Your task to perform on an android device: Go to ESPN.com Image 0: 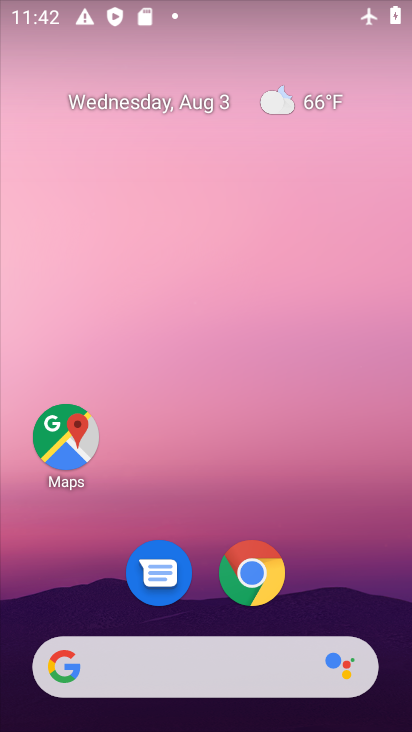
Step 0: drag from (320, 595) to (293, 89)
Your task to perform on an android device: Go to ESPN.com Image 1: 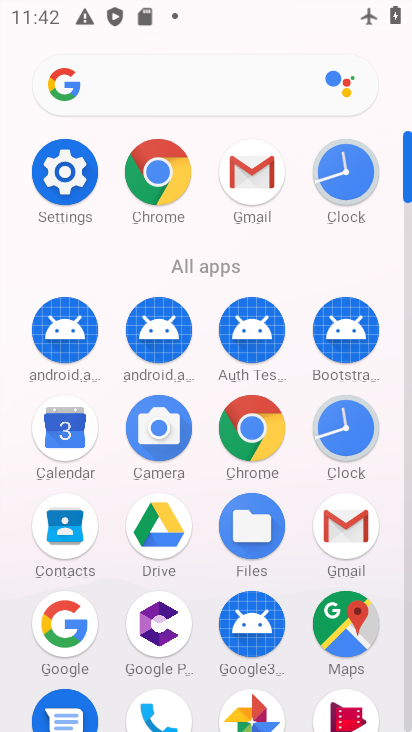
Step 1: click (153, 165)
Your task to perform on an android device: Go to ESPN.com Image 2: 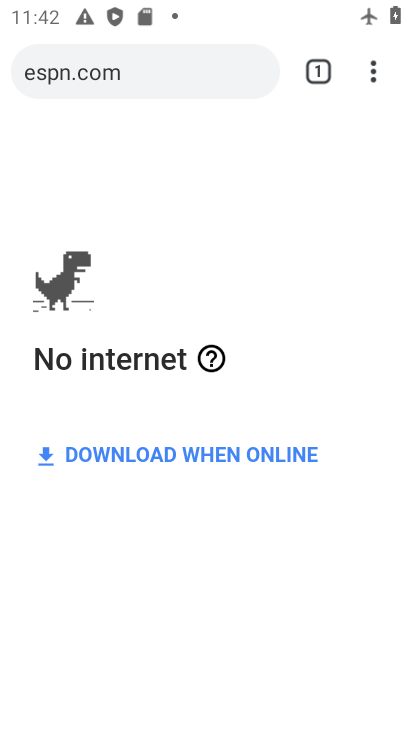
Step 2: press enter
Your task to perform on an android device: Go to ESPN.com Image 3: 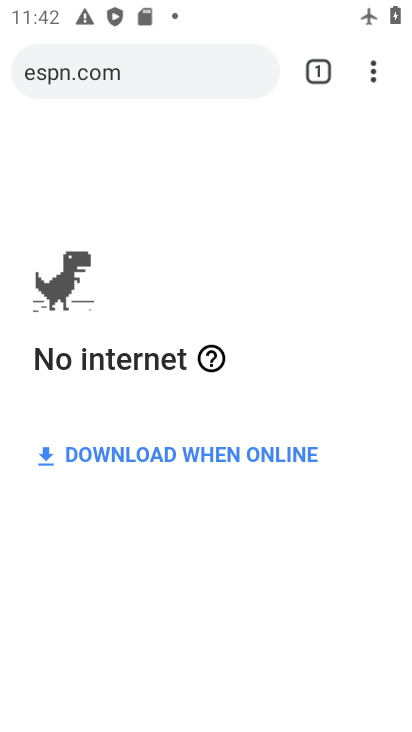
Step 3: click (221, 61)
Your task to perform on an android device: Go to ESPN.com Image 4: 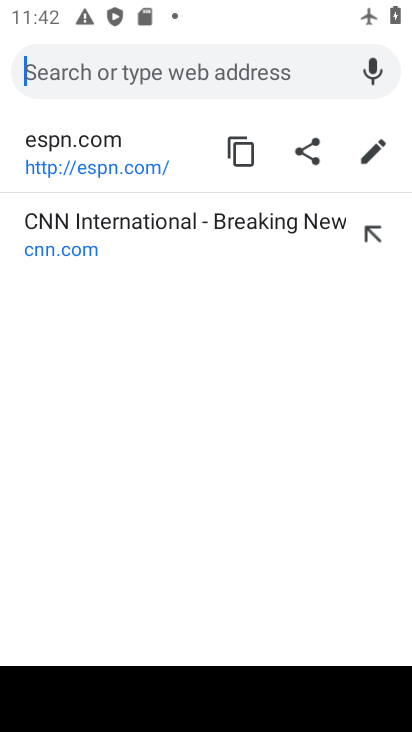
Step 4: click (24, 158)
Your task to perform on an android device: Go to ESPN.com Image 5: 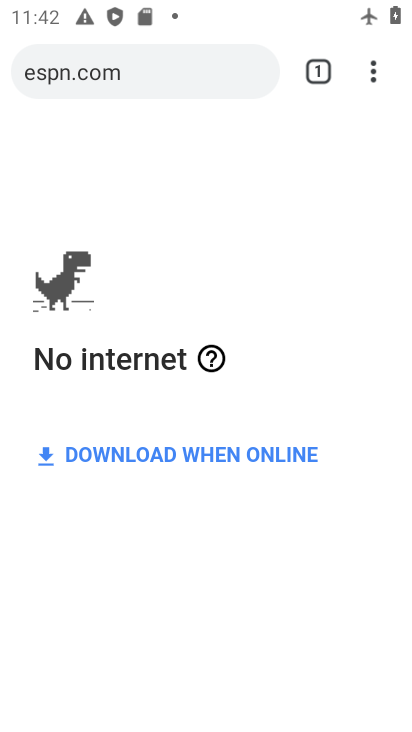
Step 5: task complete